Your task to perform on an android device: Do I have any events this weekend? Image 0: 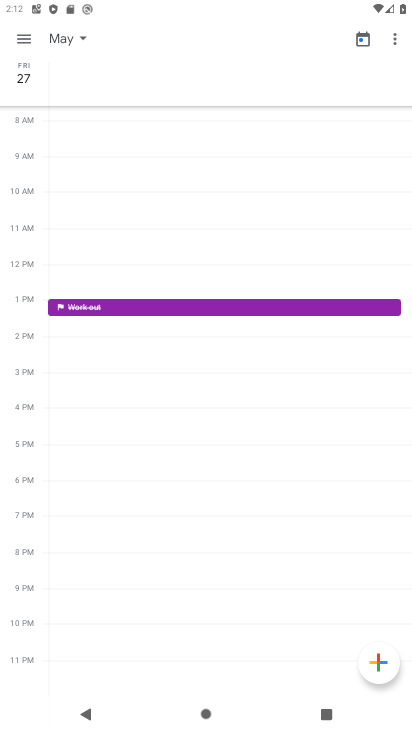
Step 0: click (53, 35)
Your task to perform on an android device: Do I have any events this weekend? Image 1: 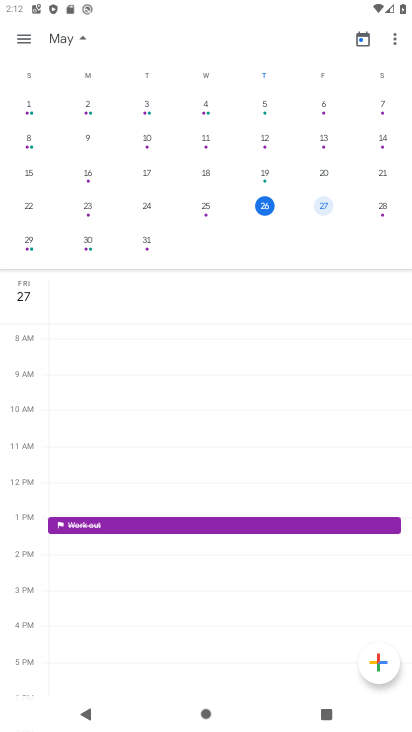
Step 1: click (378, 212)
Your task to perform on an android device: Do I have any events this weekend? Image 2: 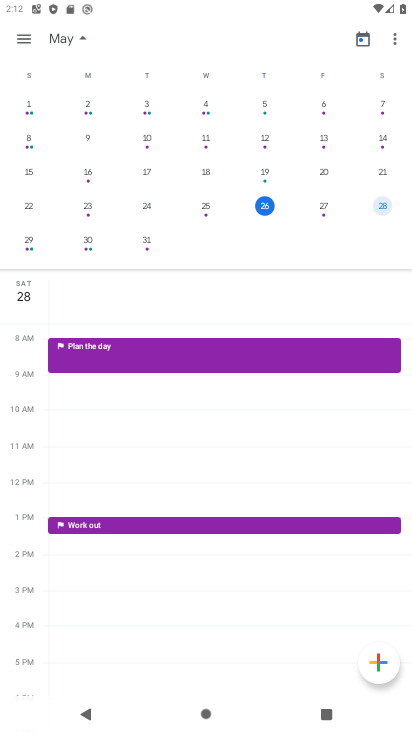
Step 2: task complete